Your task to perform on an android device: refresh tabs in the chrome app Image 0: 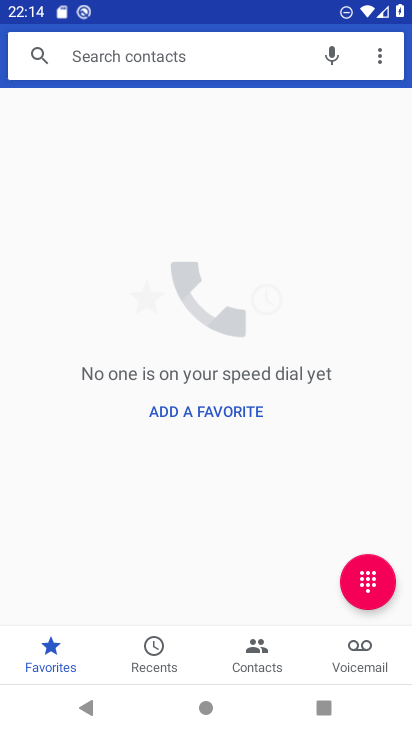
Step 0: press home button
Your task to perform on an android device: refresh tabs in the chrome app Image 1: 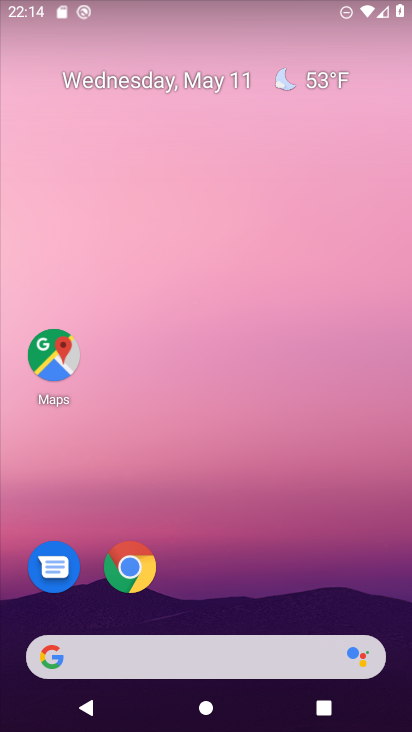
Step 1: click (135, 572)
Your task to perform on an android device: refresh tabs in the chrome app Image 2: 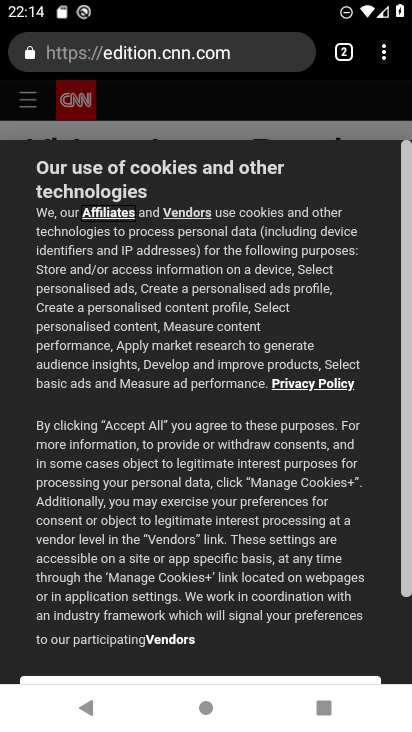
Step 2: click (385, 46)
Your task to perform on an android device: refresh tabs in the chrome app Image 3: 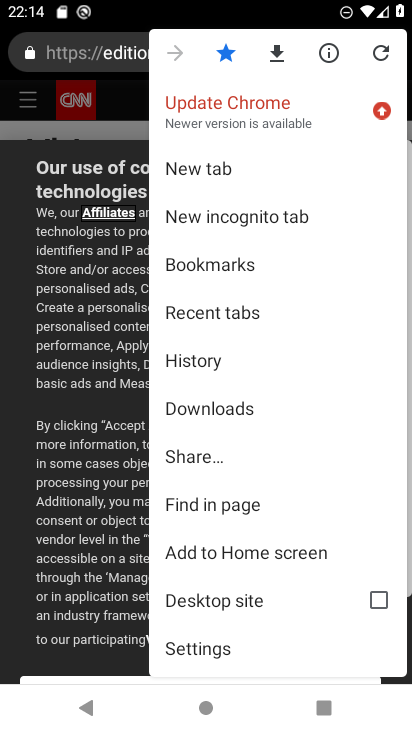
Step 3: click (382, 45)
Your task to perform on an android device: refresh tabs in the chrome app Image 4: 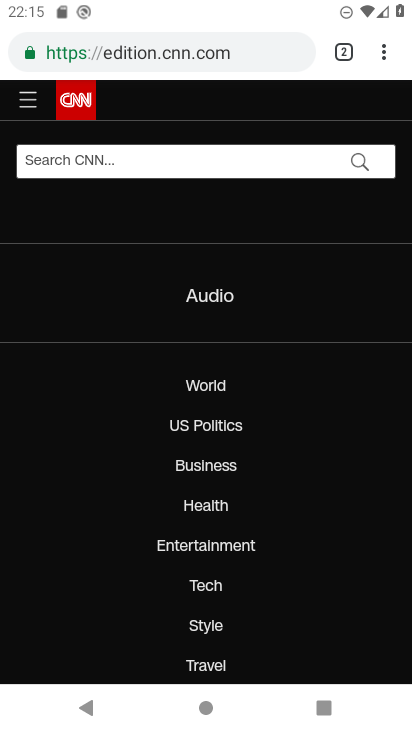
Step 4: click (393, 46)
Your task to perform on an android device: refresh tabs in the chrome app Image 5: 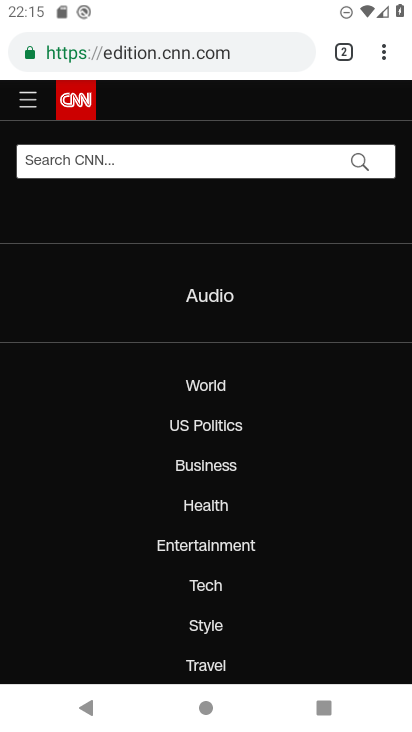
Step 5: click (380, 51)
Your task to perform on an android device: refresh tabs in the chrome app Image 6: 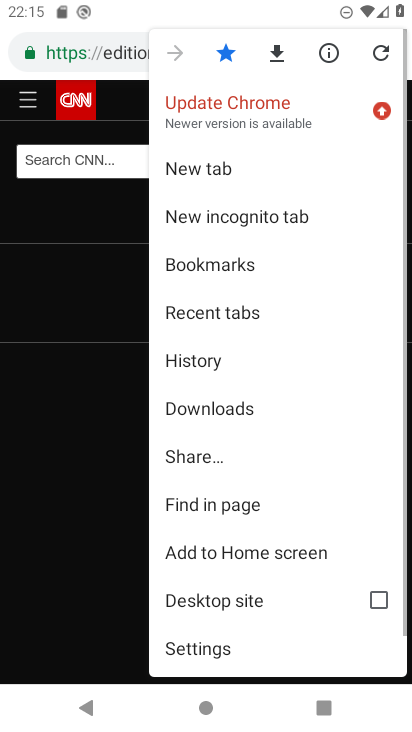
Step 6: click (380, 51)
Your task to perform on an android device: refresh tabs in the chrome app Image 7: 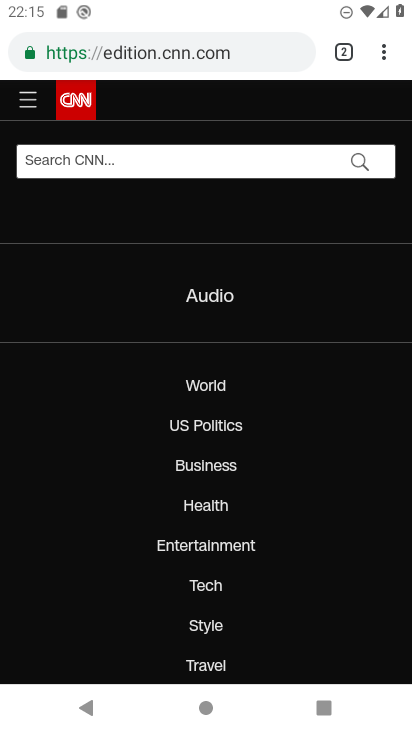
Step 7: click (379, 60)
Your task to perform on an android device: refresh tabs in the chrome app Image 8: 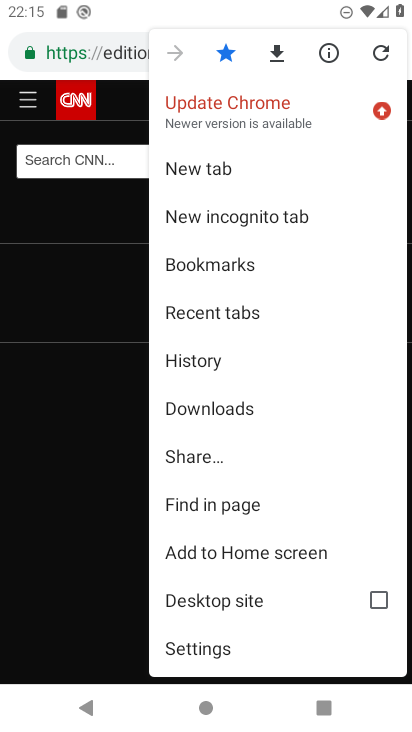
Step 8: click (380, 53)
Your task to perform on an android device: refresh tabs in the chrome app Image 9: 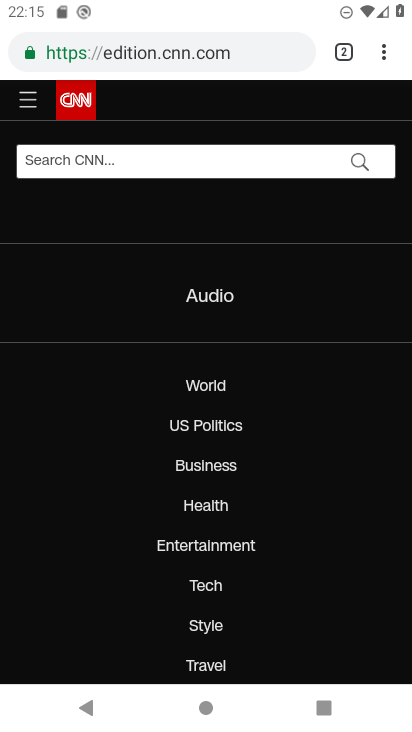
Step 9: task complete